Your task to perform on an android device: change the clock display to digital Image 0: 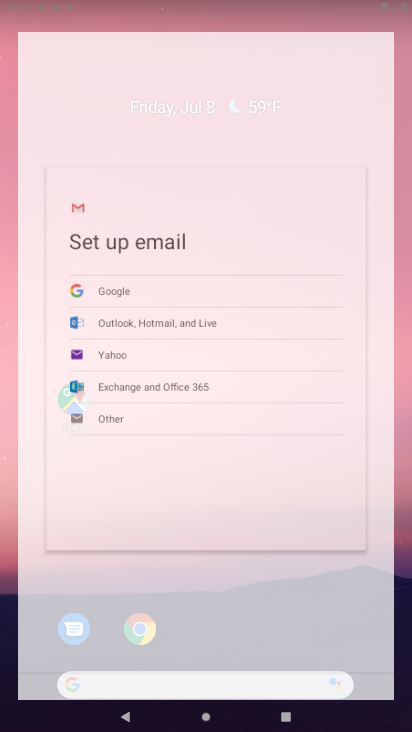
Step 0: press home button
Your task to perform on an android device: change the clock display to digital Image 1: 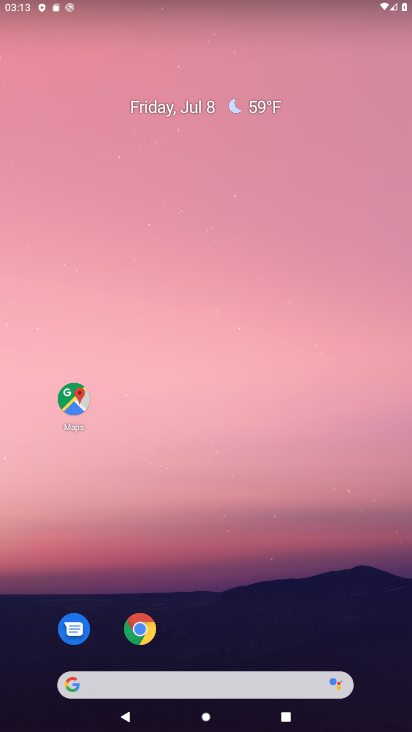
Step 1: drag from (217, 649) to (248, 22)
Your task to perform on an android device: change the clock display to digital Image 2: 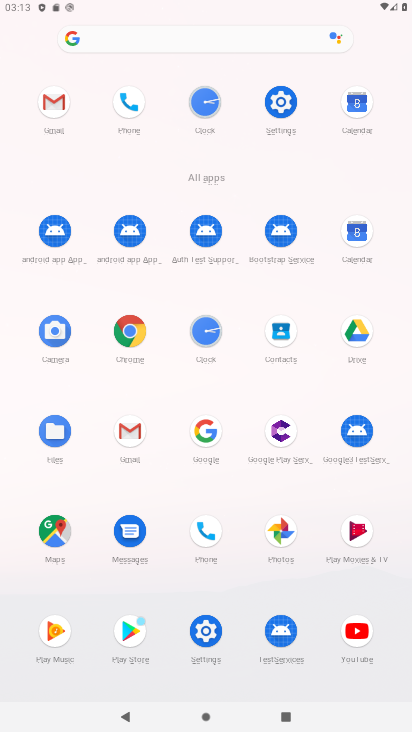
Step 2: click (201, 330)
Your task to perform on an android device: change the clock display to digital Image 3: 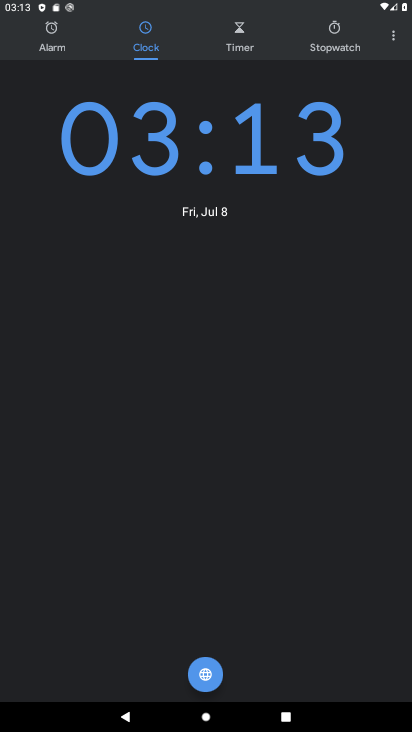
Step 3: click (394, 37)
Your task to perform on an android device: change the clock display to digital Image 4: 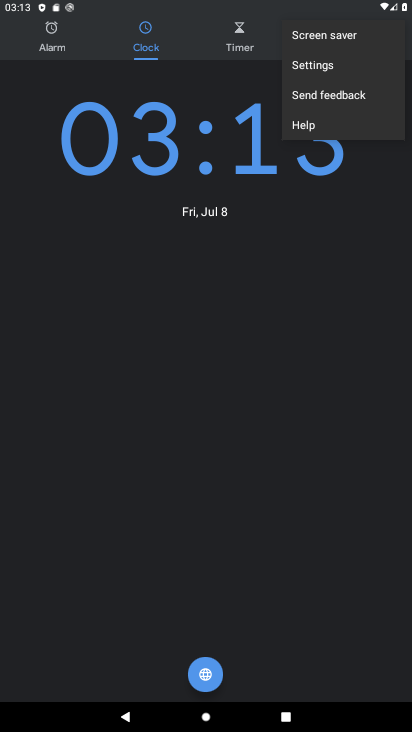
Step 4: click (344, 70)
Your task to perform on an android device: change the clock display to digital Image 5: 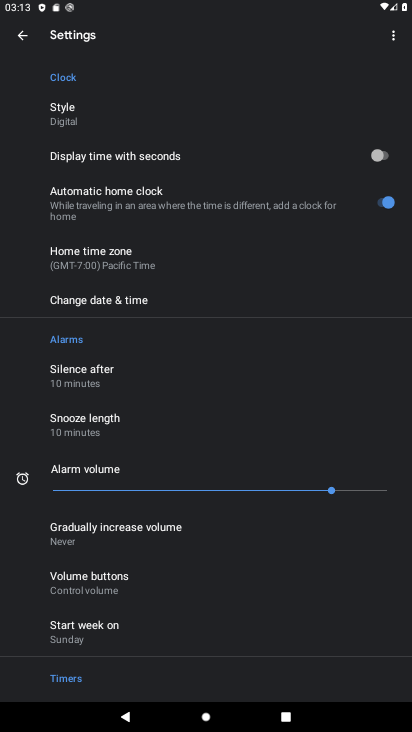
Step 5: click (85, 110)
Your task to perform on an android device: change the clock display to digital Image 6: 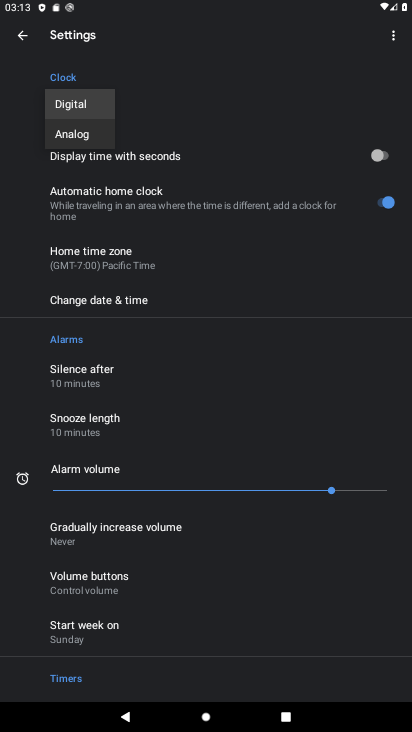
Step 6: click (87, 110)
Your task to perform on an android device: change the clock display to digital Image 7: 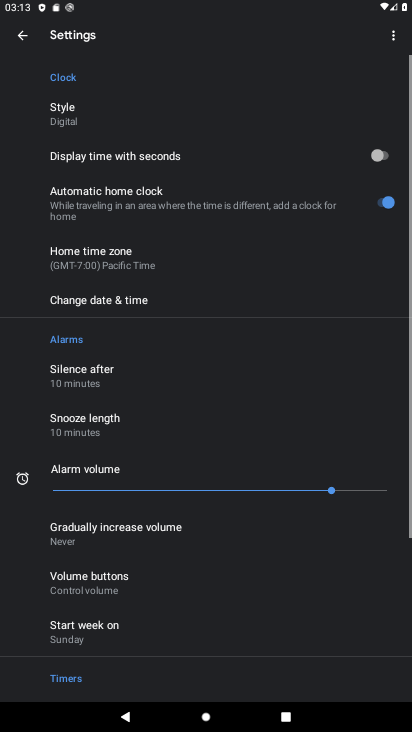
Step 7: task complete